Your task to perform on an android device: Open Google Chrome and click the shortcut for Amazon.com Image 0: 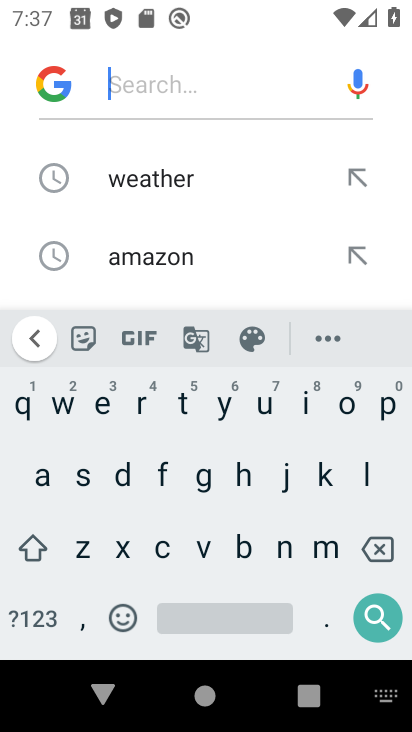
Step 0: press home button
Your task to perform on an android device: Open Google Chrome and click the shortcut for Amazon.com Image 1: 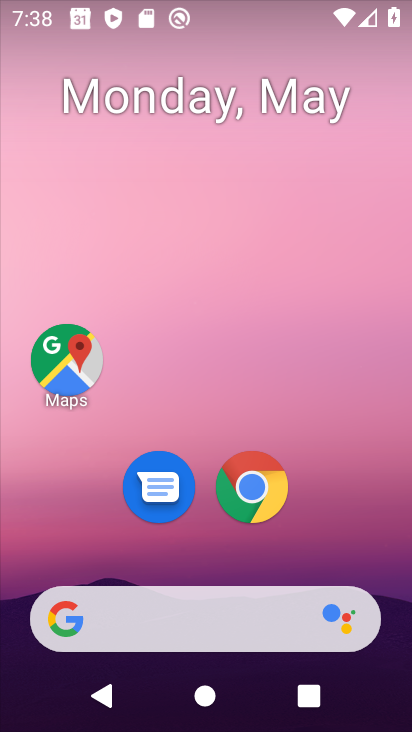
Step 1: drag from (250, 687) to (229, 510)
Your task to perform on an android device: Open Google Chrome and click the shortcut for Amazon.com Image 2: 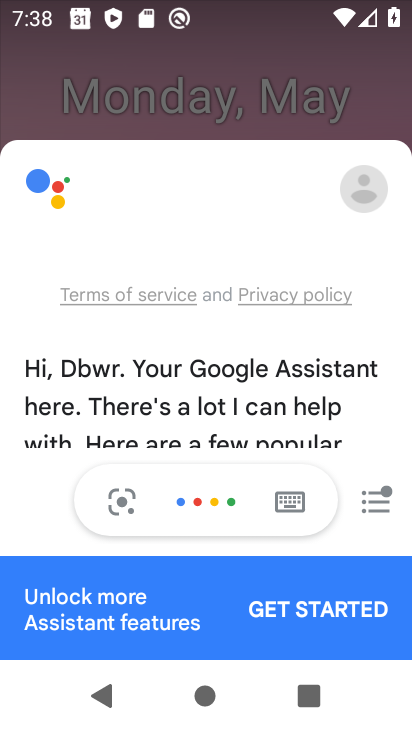
Step 2: click (346, 59)
Your task to perform on an android device: Open Google Chrome and click the shortcut for Amazon.com Image 3: 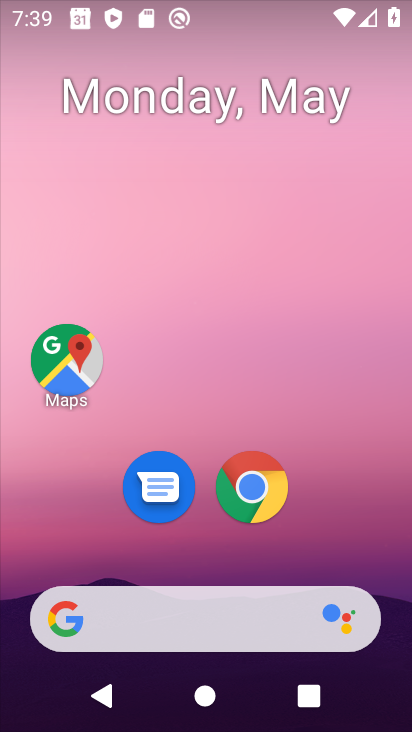
Step 3: press back button
Your task to perform on an android device: Open Google Chrome and click the shortcut for Amazon.com Image 4: 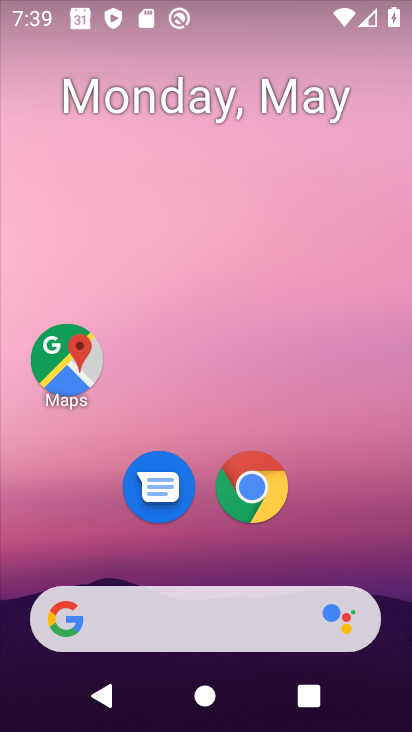
Step 4: press back button
Your task to perform on an android device: Open Google Chrome and click the shortcut for Amazon.com Image 5: 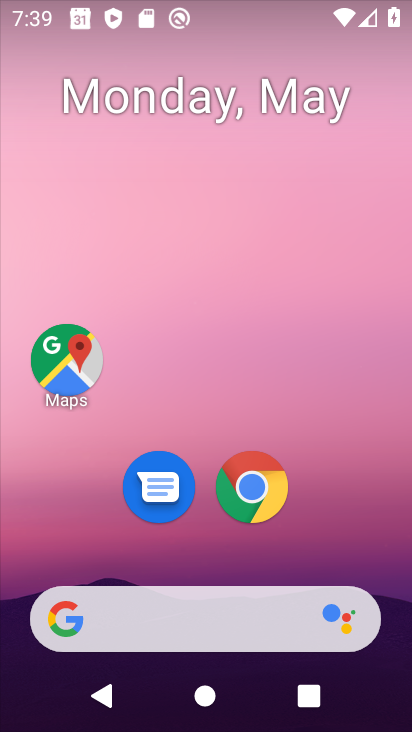
Step 5: drag from (260, 320) to (36, 337)
Your task to perform on an android device: Open Google Chrome and click the shortcut for Amazon.com Image 6: 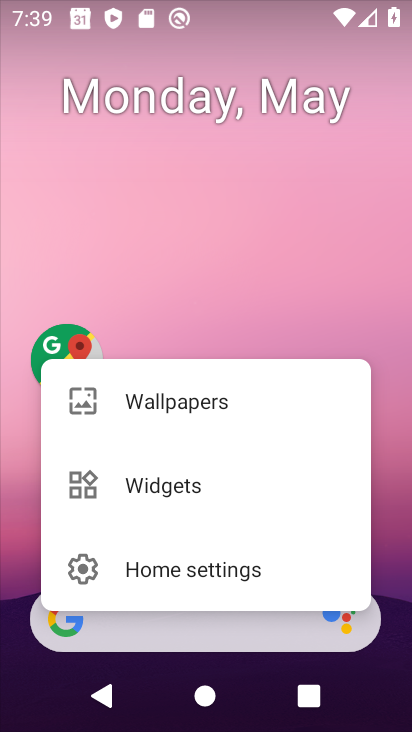
Step 6: click (205, 294)
Your task to perform on an android device: Open Google Chrome and click the shortcut for Amazon.com Image 7: 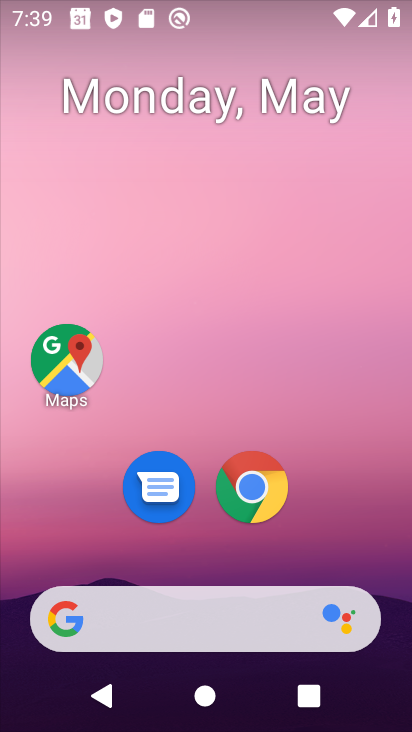
Step 7: click (261, 492)
Your task to perform on an android device: Open Google Chrome and click the shortcut for Amazon.com Image 8: 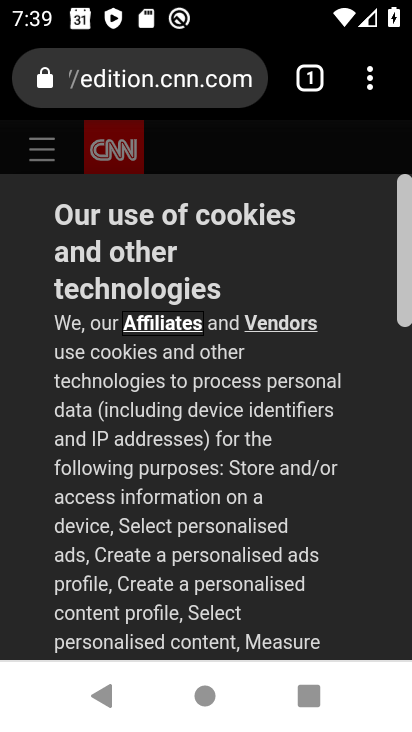
Step 8: click (365, 78)
Your task to perform on an android device: Open Google Chrome and click the shortcut for Amazon.com Image 9: 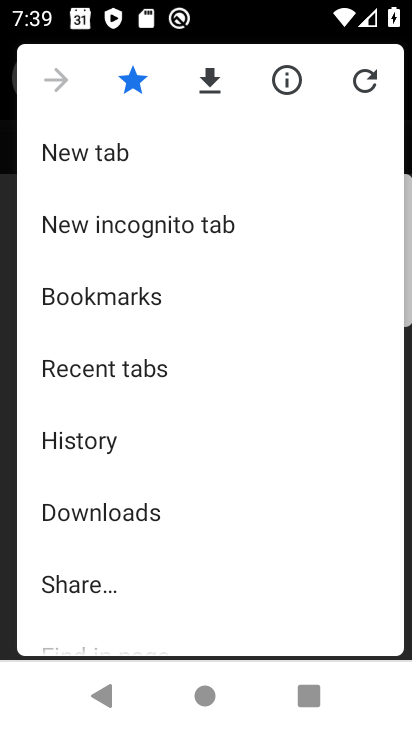
Step 9: drag from (183, 469) to (155, 187)
Your task to perform on an android device: Open Google Chrome and click the shortcut for Amazon.com Image 10: 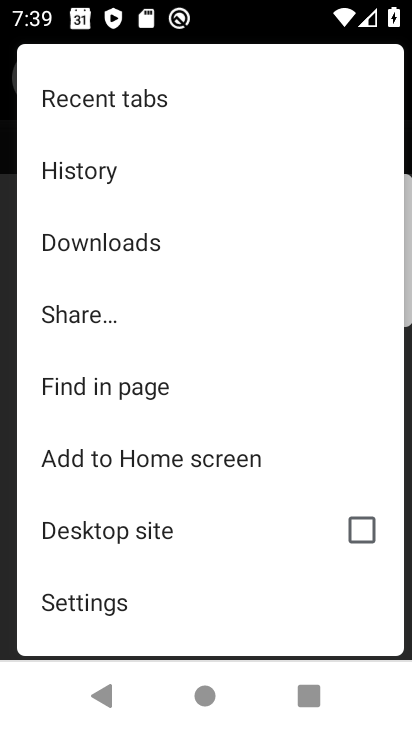
Step 10: drag from (119, 165) to (158, 424)
Your task to perform on an android device: Open Google Chrome and click the shortcut for Amazon.com Image 11: 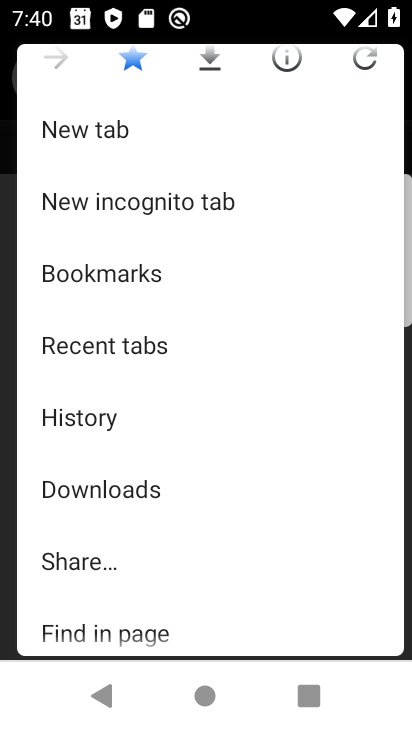
Step 11: click (122, 124)
Your task to perform on an android device: Open Google Chrome and click the shortcut for Amazon.com Image 12: 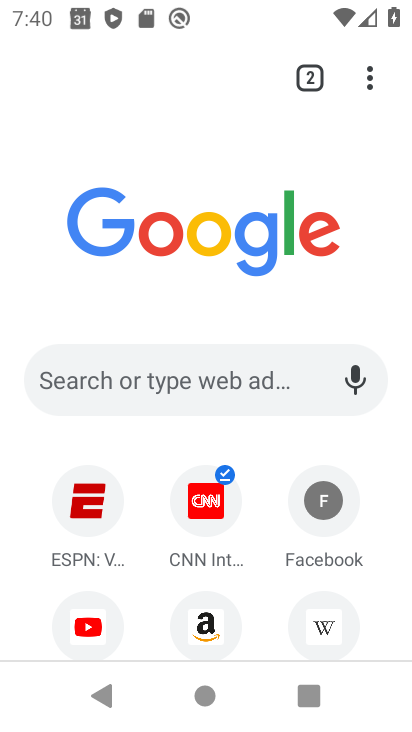
Step 12: click (209, 608)
Your task to perform on an android device: Open Google Chrome and click the shortcut for Amazon.com Image 13: 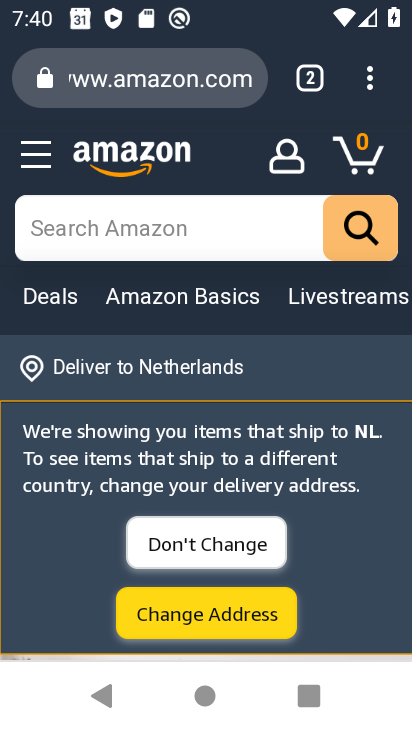
Step 13: click (363, 91)
Your task to perform on an android device: Open Google Chrome and click the shortcut for Amazon.com Image 14: 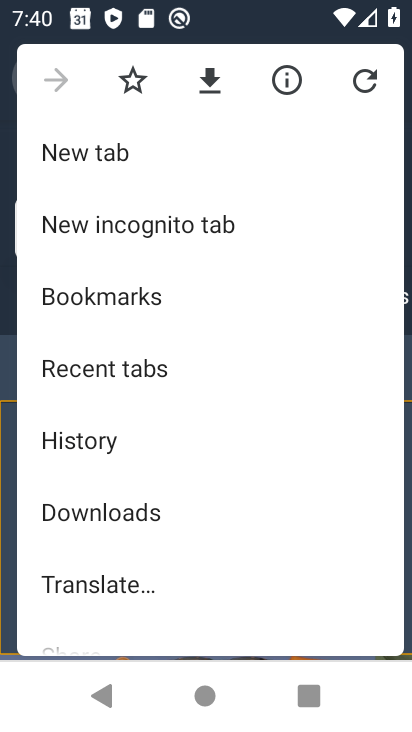
Step 14: drag from (164, 551) to (188, 383)
Your task to perform on an android device: Open Google Chrome and click the shortcut for Amazon.com Image 15: 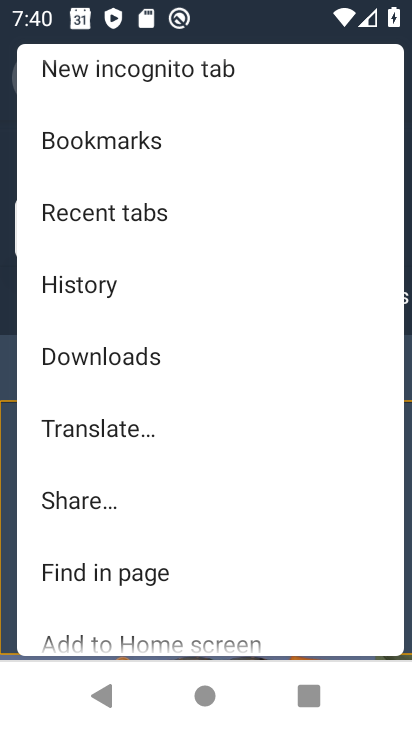
Step 15: drag from (219, 527) to (268, 359)
Your task to perform on an android device: Open Google Chrome and click the shortcut for Amazon.com Image 16: 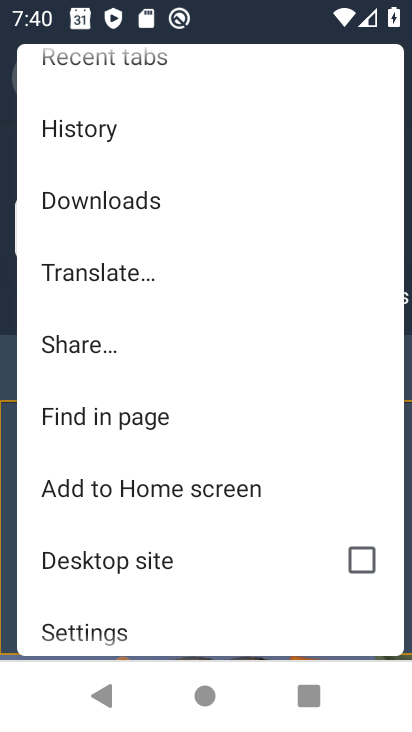
Step 16: click (137, 494)
Your task to perform on an android device: Open Google Chrome and click the shortcut for Amazon.com Image 17: 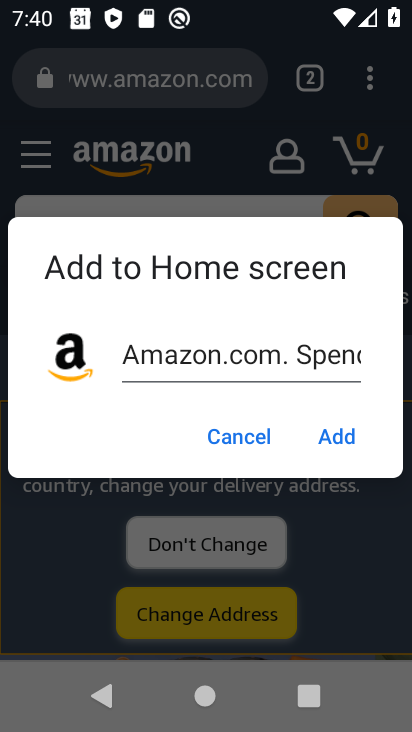
Step 17: click (328, 430)
Your task to perform on an android device: Open Google Chrome and click the shortcut for Amazon.com Image 18: 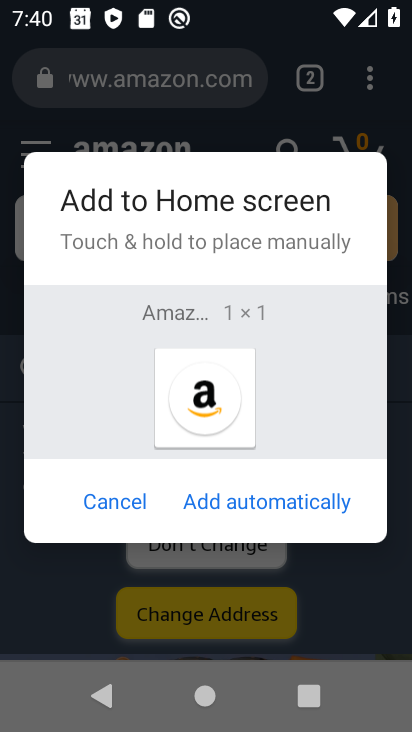
Step 18: click (289, 504)
Your task to perform on an android device: Open Google Chrome and click the shortcut for Amazon.com Image 19: 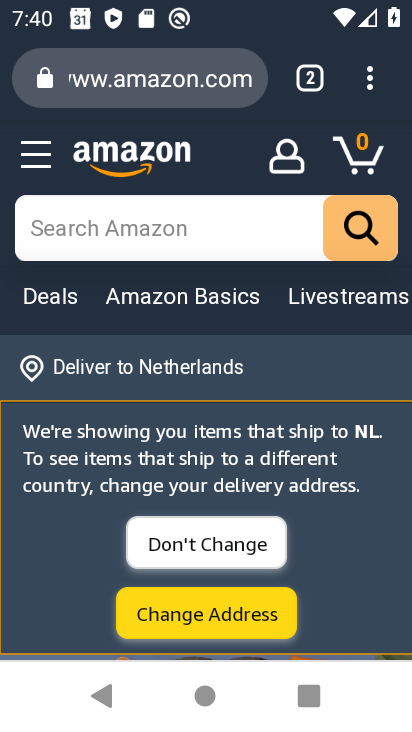
Step 19: task complete